Your task to perform on an android device: empty trash in the gmail app Image 0: 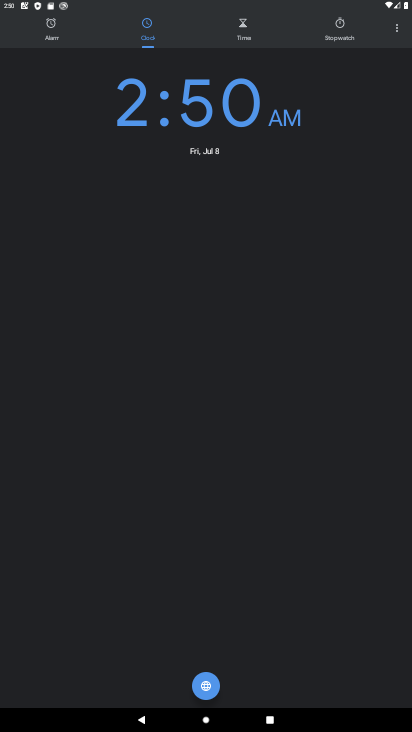
Step 0: press home button
Your task to perform on an android device: empty trash in the gmail app Image 1: 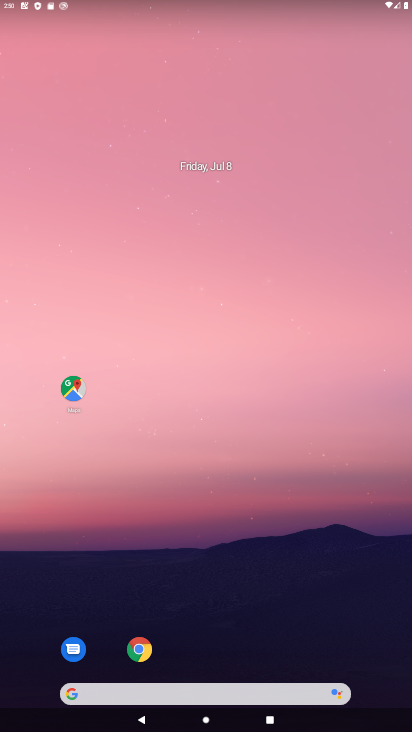
Step 1: drag from (223, 680) to (180, 106)
Your task to perform on an android device: empty trash in the gmail app Image 2: 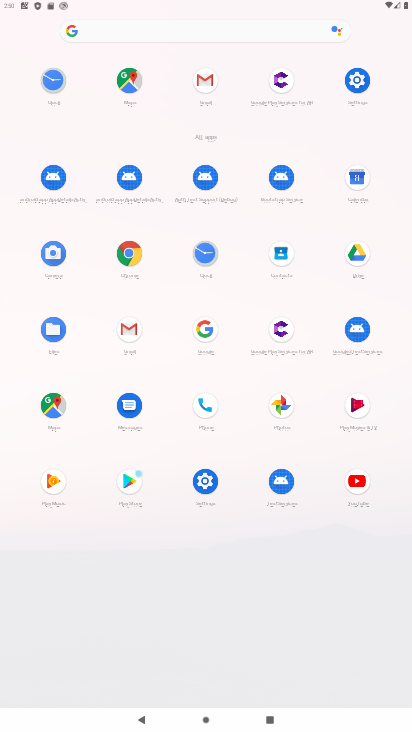
Step 2: click (124, 334)
Your task to perform on an android device: empty trash in the gmail app Image 3: 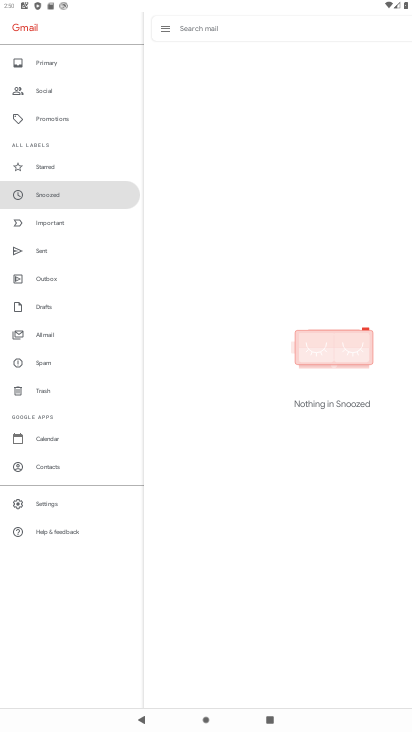
Step 3: click (53, 378)
Your task to perform on an android device: empty trash in the gmail app Image 4: 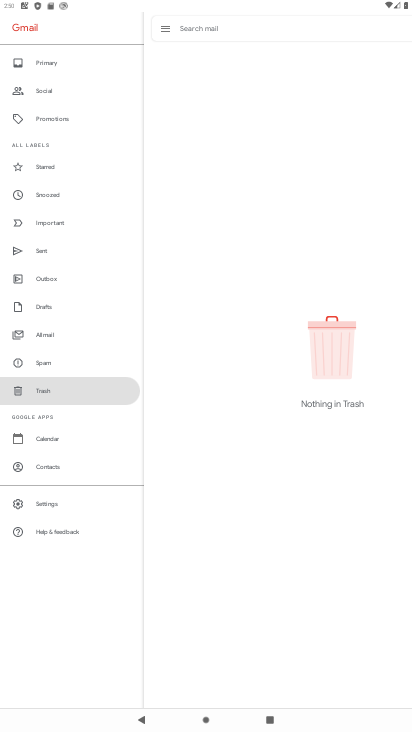
Step 4: task complete